Your task to perform on an android device: Show me productivity apps on the Play Store Image 0: 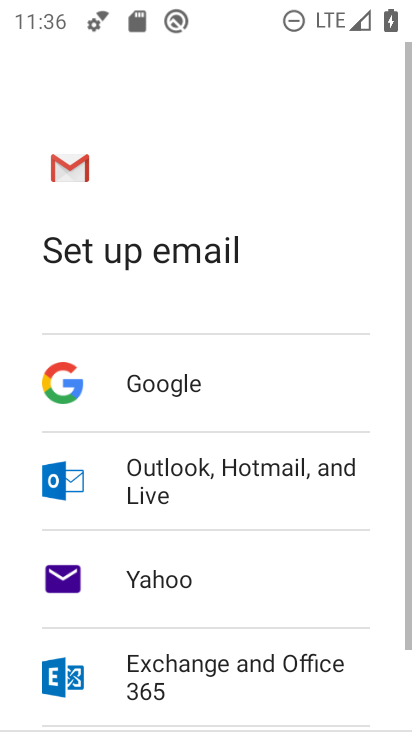
Step 0: press home button
Your task to perform on an android device: Show me productivity apps on the Play Store Image 1: 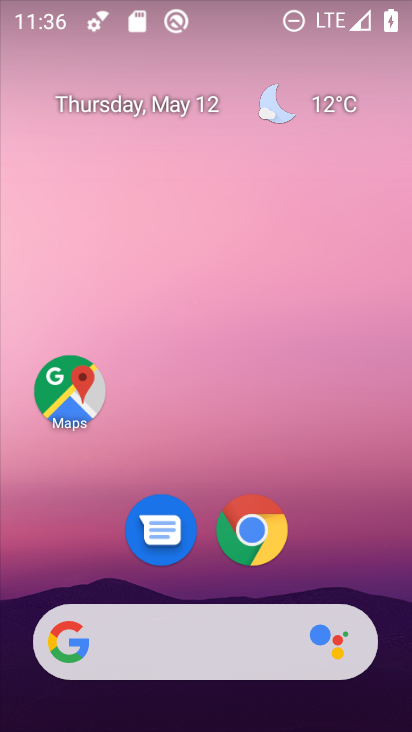
Step 1: drag from (209, 624) to (252, 138)
Your task to perform on an android device: Show me productivity apps on the Play Store Image 2: 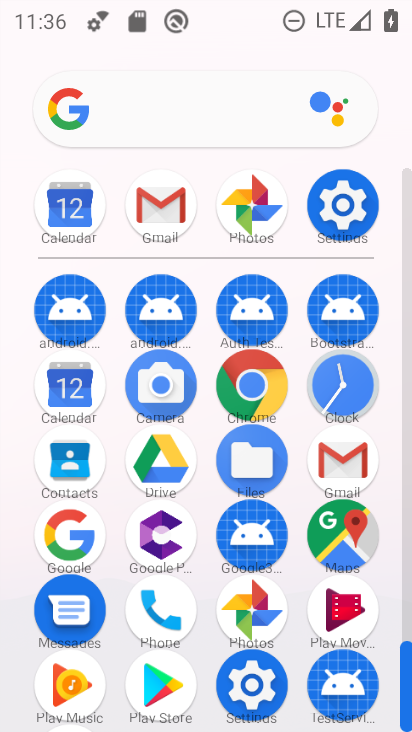
Step 2: click (145, 689)
Your task to perform on an android device: Show me productivity apps on the Play Store Image 3: 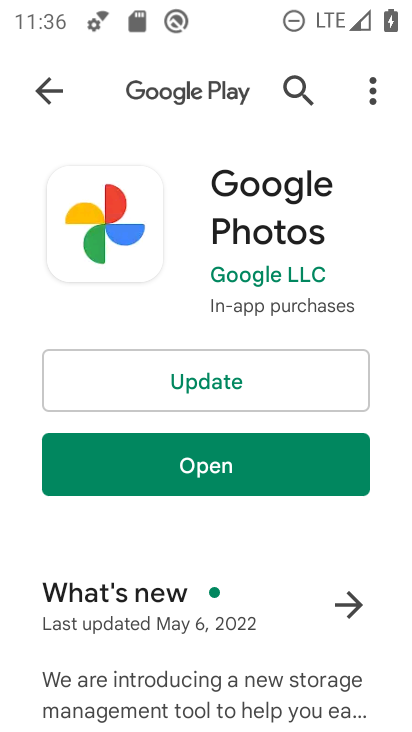
Step 3: click (49, 92)
Your task to perform on an android device: Show me productivity apps on the Play Store Image 4: 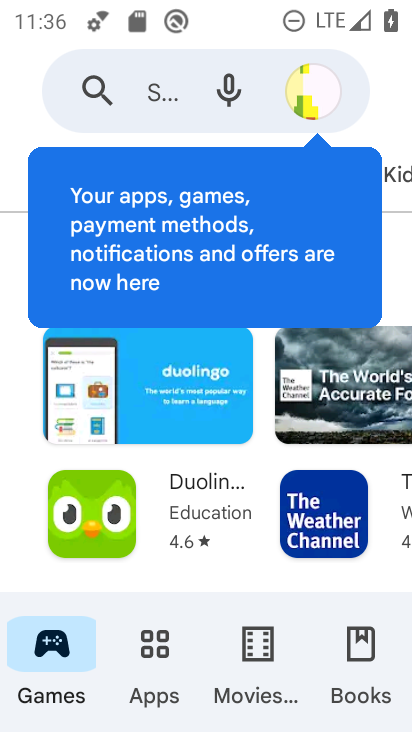
Step 4: click (159, 645)
Your task to perform on an android device: Show me productivity apps on the Play Store Image 5: 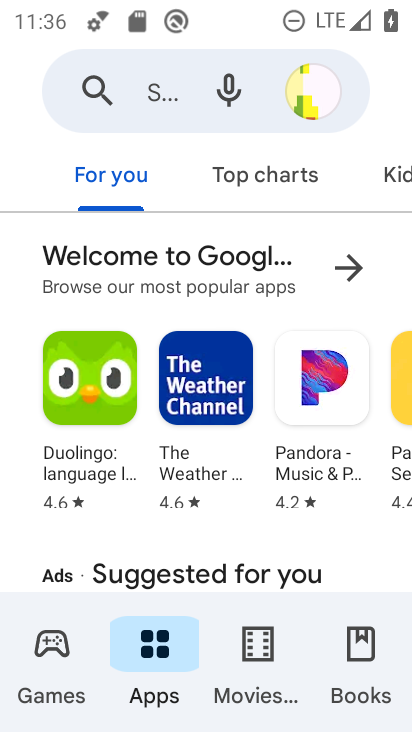
Step 5: drag from (366, 187) to (80, 129)
Your task to perform on an android device: Show me productivity apps on the Play Store Image 6: 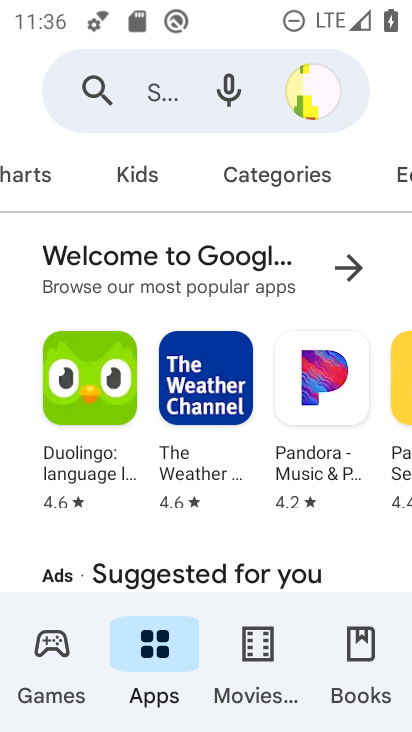
Step 6: click (245, 186)
Your task to perform on an android device: Show me productivity apps on the Play Store Image 7: 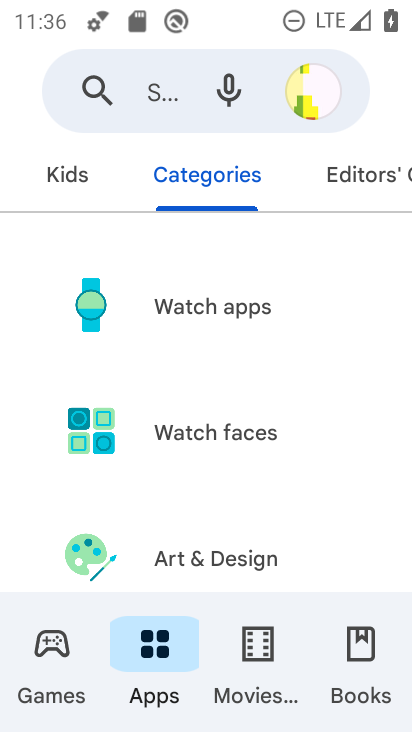
Step 7: drag from (268, 537) to (252, 78)
Your task to perform on an android device: Show me productivity apps on the Play Store Image 8: 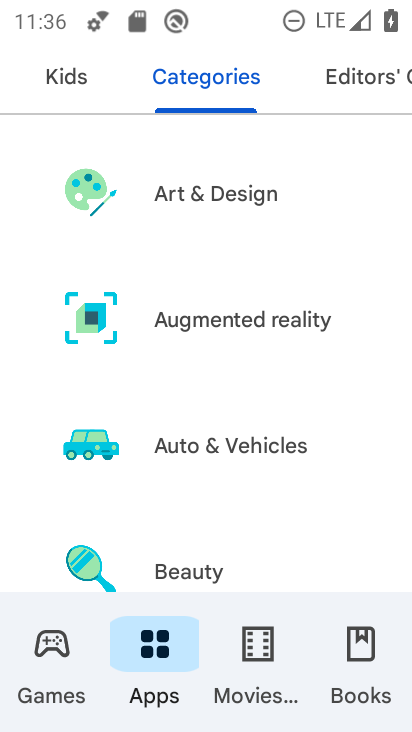
Step 8: drag from (224, 557) to (271, 46)
Your task to perform on an android device: Show me productivity apps on the Play Store Image 9: 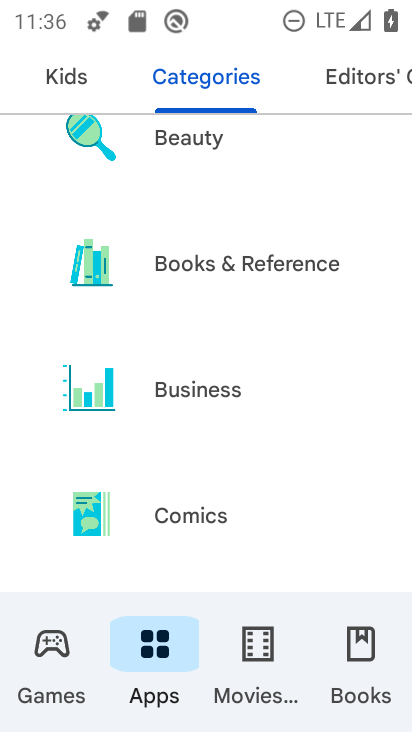
Step 9: drag from (209, 578) to (326, 81)
Your task to perform on an android device: Show me productivity apps on the Play Store Image 10: 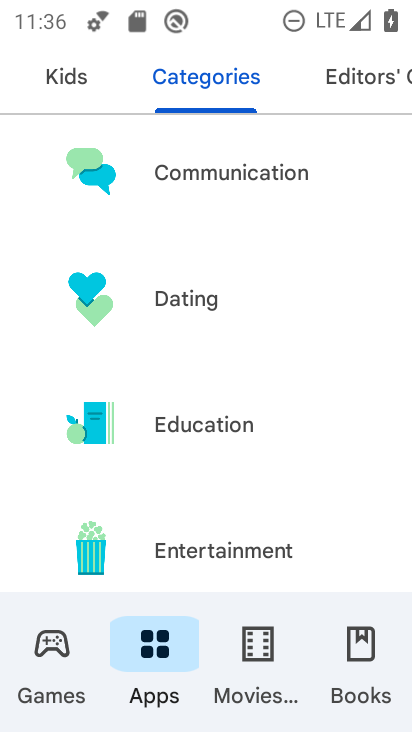
Step 10: drag from (257, 535) to (312, 5)
Your task to perform on an android device: Show me productivity apps on the Play Store Image 11: 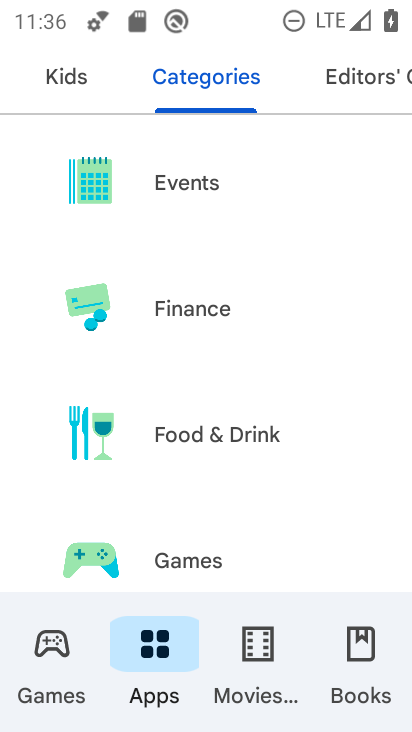
Step 11: drag from (241, 519) to (310, 28)
Your task to perform on an android device: Show me productivity apps on the Play Store Image 12: 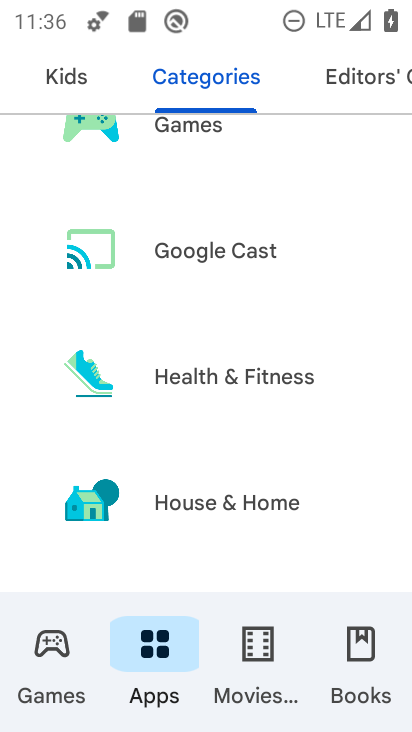
Step 12: drag from (283, 269) to (341, 107)
Your task to perform on an android device: Show me productivity apps on the Play Store Image 13: 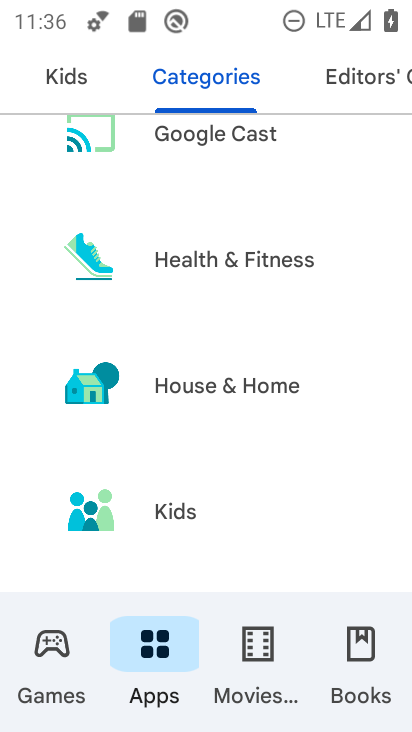
Step 13: drag from (242, 522) to (379, 34)
Your task to perform on an android device: Show me productivity apps on the Play Store Image 14: 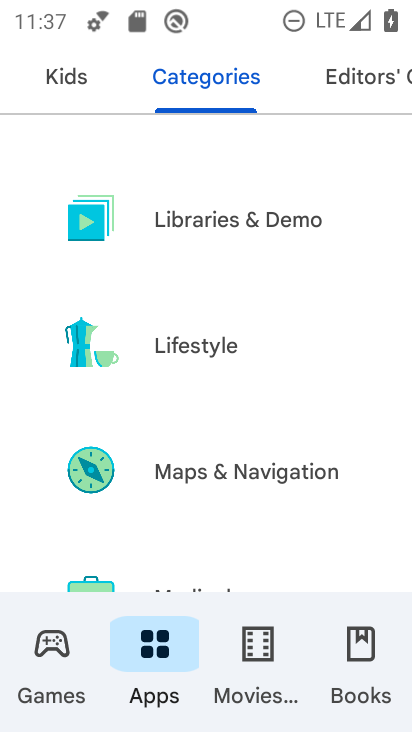
Step 14: drag from (249, 513) to (334, 86)
Your task to perform on an android device: Show me productivity apps on the Play Store Image 15: 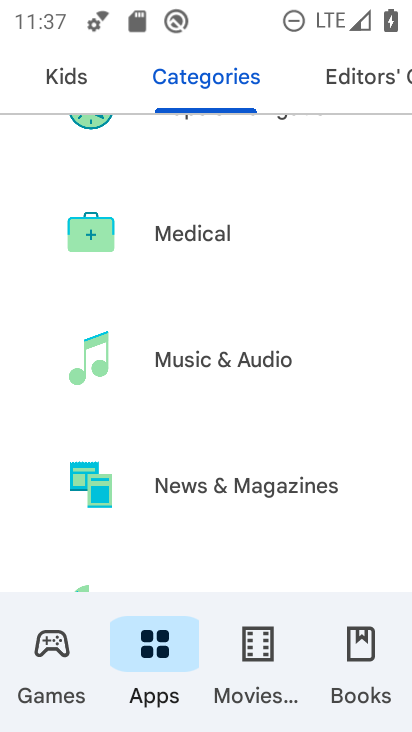
Step 15: drag from (228, 533) to (410, 61)
Your task to perform on an android device: Show me productivity apps on the Play Store Image 16: 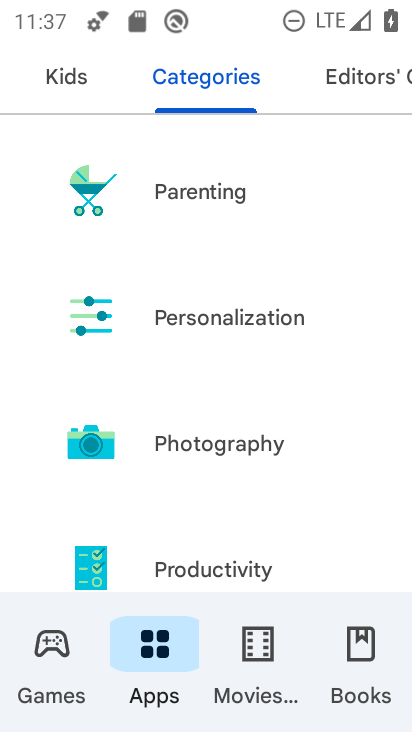
Step 16: drag from (233, 510) to (365, 184)
Your task to perform on an android device: Show me productivity apps on the Play Store Image 17: 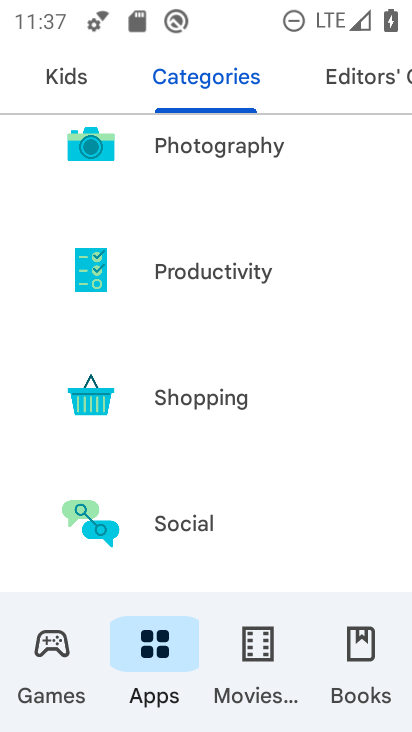
Step 17: click (242, 274)
Your task to perform on an android device: Show me productivity apps on the Play Store Image 18: 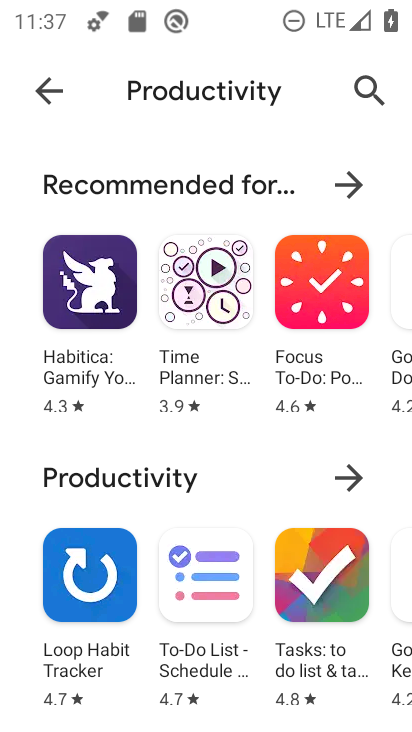
Step 18: task complete